Your task to perform on an android device: Open internet settings Image 0: 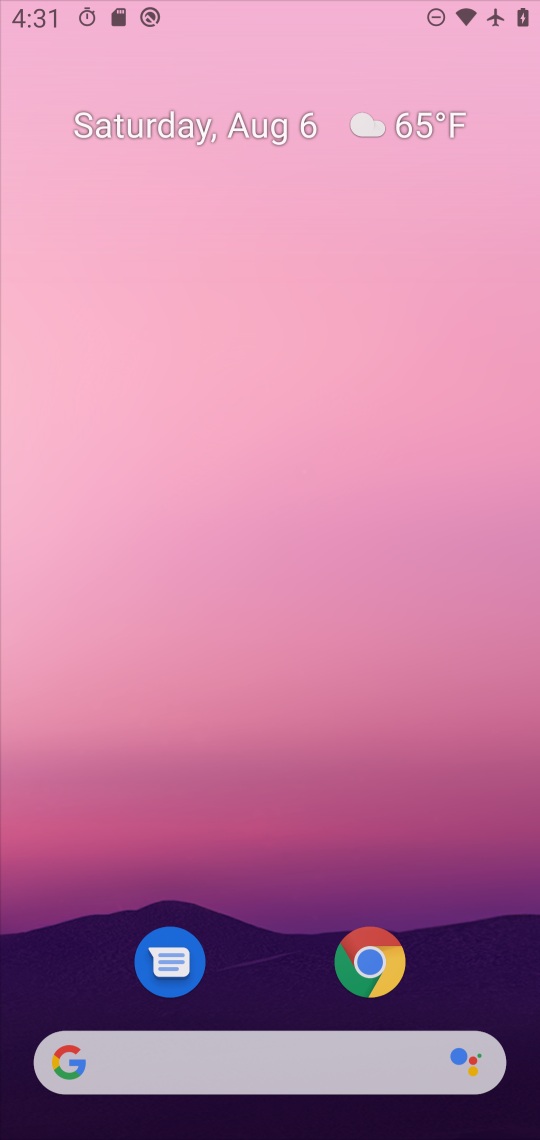
Step 0: press home button
Your task to perform on an android device: Open internet settings Image 1: 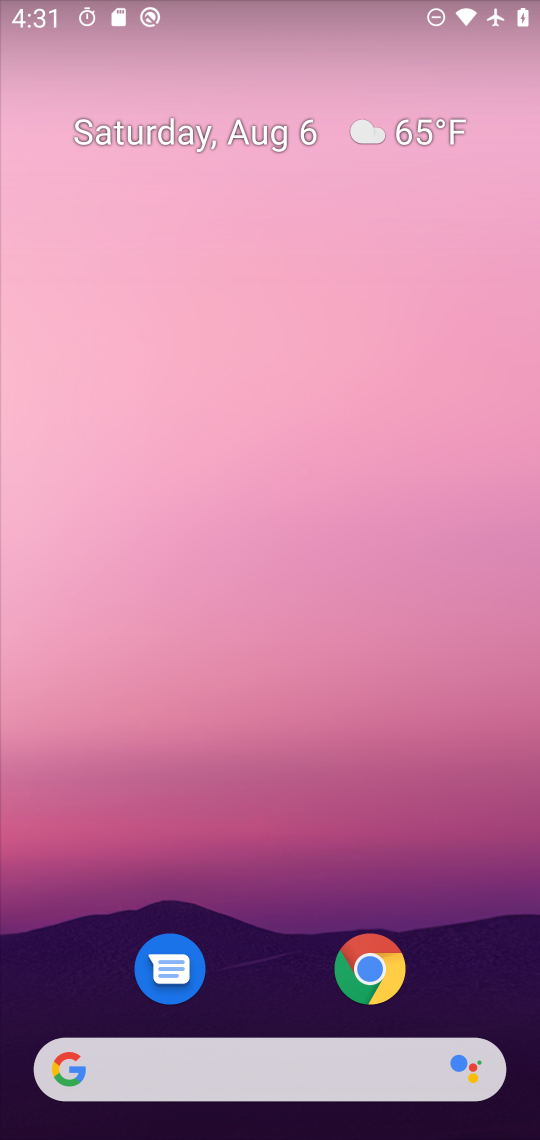
Step 1: drag from (298, 839) to (402, 8)
Your task to perform on an android device: Open internet settings Image 2: 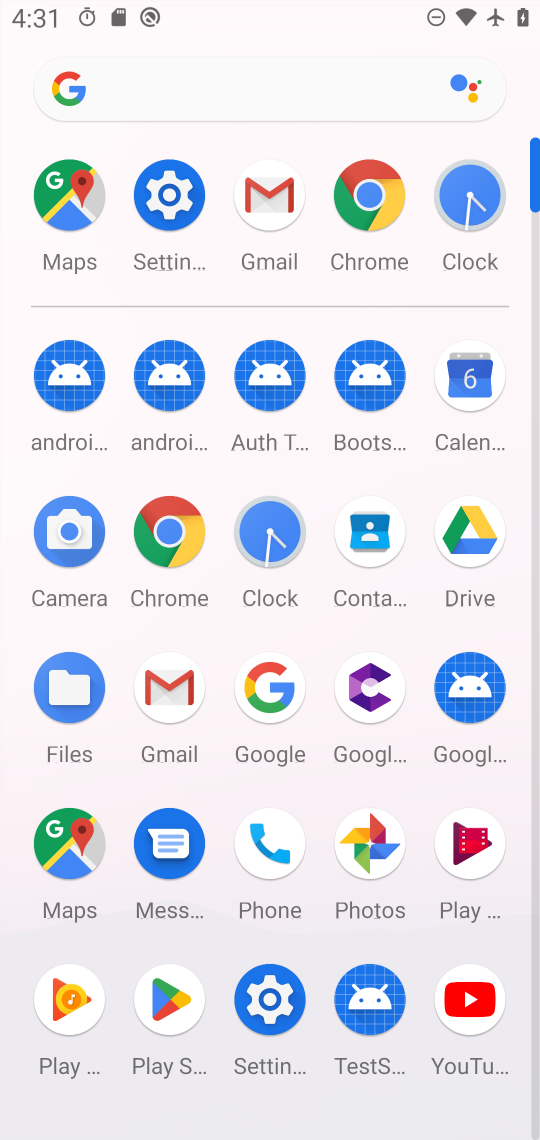
Step 2: click (185, 184)
Your task to perform on an android device: Open internet settings Image 3: 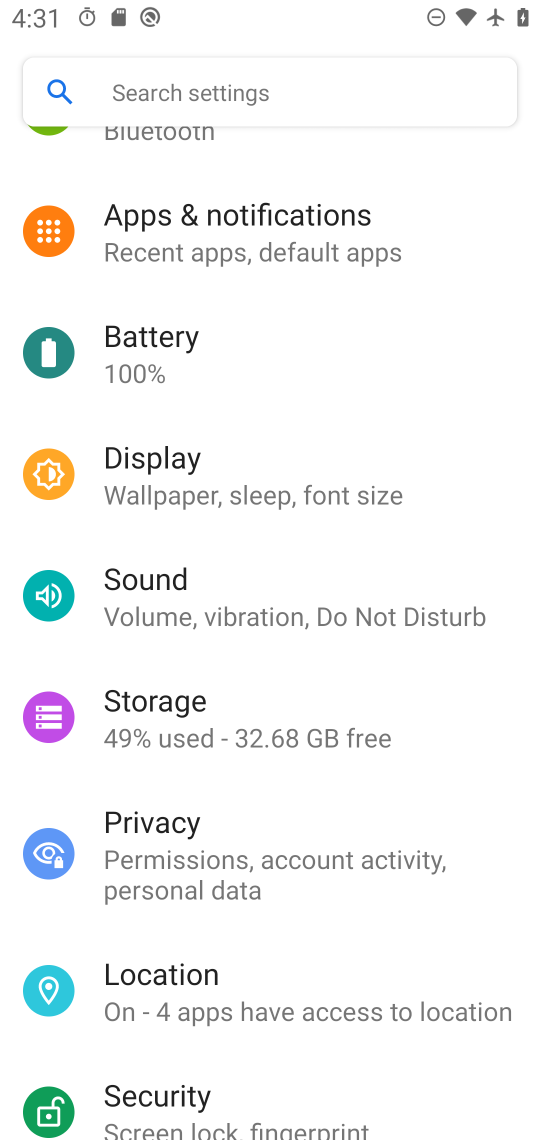
Step 3: drag from (231, 170) to (211, 668)
Your task to perform on an android device: Open internet settings Image 4: 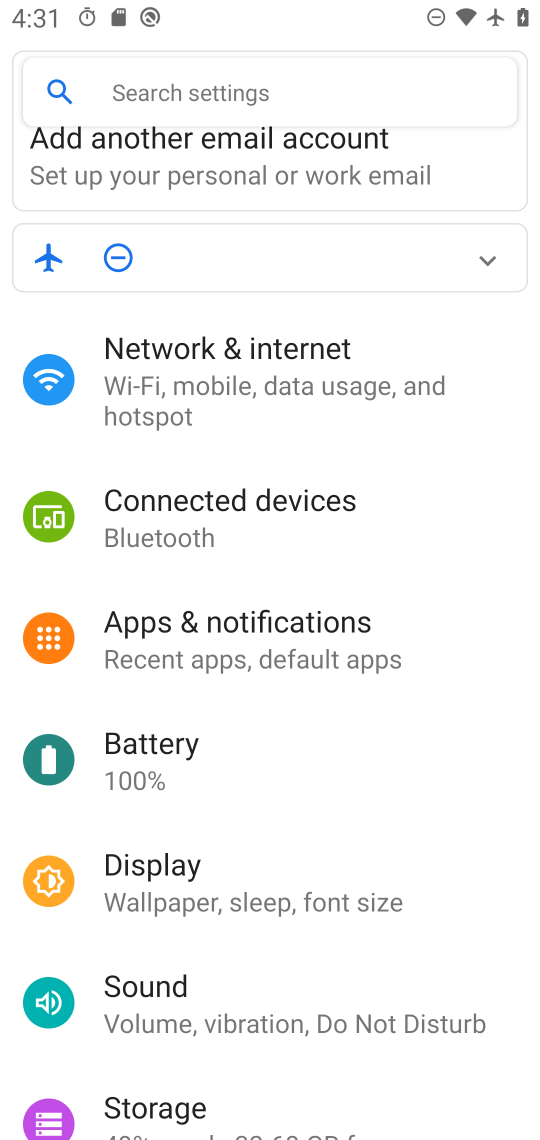
Step 4: click (213, 352)
Your task to perform on an android device: Open internet settings Image 5: 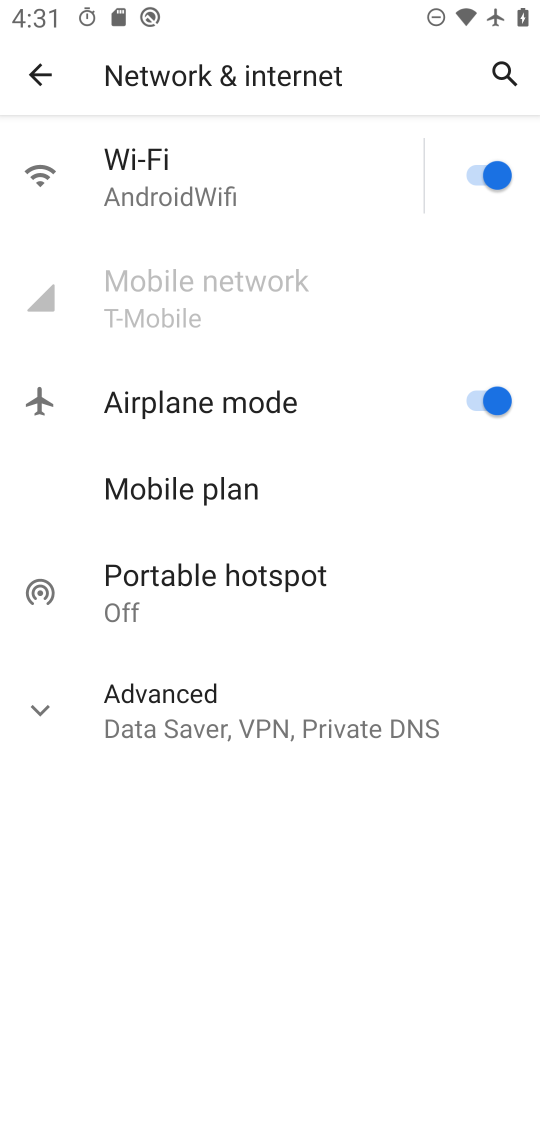
Step 5: task complete